Your task to perform on an android device: Search for sushi restaurants on Maps Image 0: 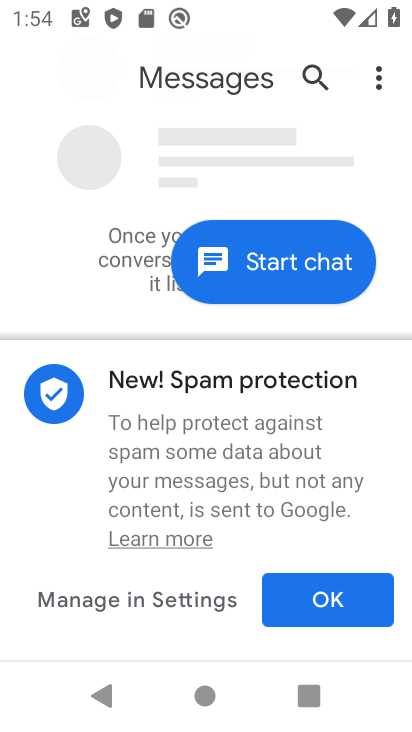
Step 0: press home button
Your task to perform on an android device: Search for sushi restaurants on Maps Image 1: 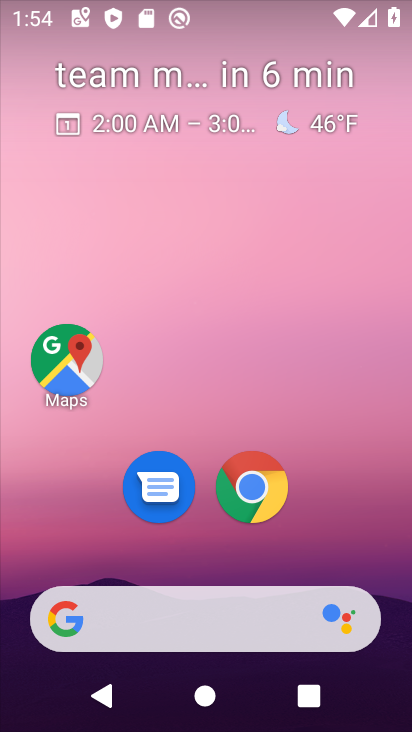
Step 1: drag from (331, 548) to (226, 121)
Your task to perform on an android device: Search for sushi restaurants on Maps Image 2: 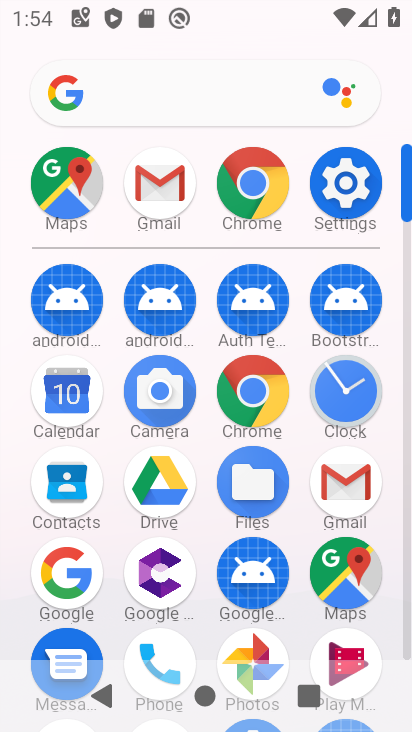
Step 2: click (344, 570)
Your task to perform on an android device: Search for sushi restaurants on Maps Image 3: 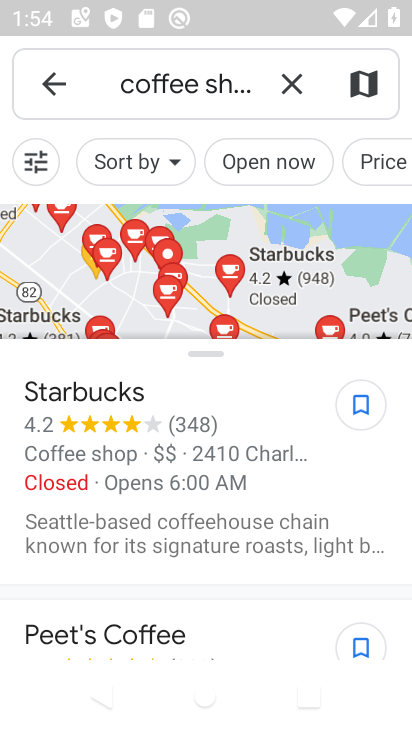
Step 3: click (171, 85)
Your task to perform on an android device: Search for sushi restaurants on Maps Image 4: 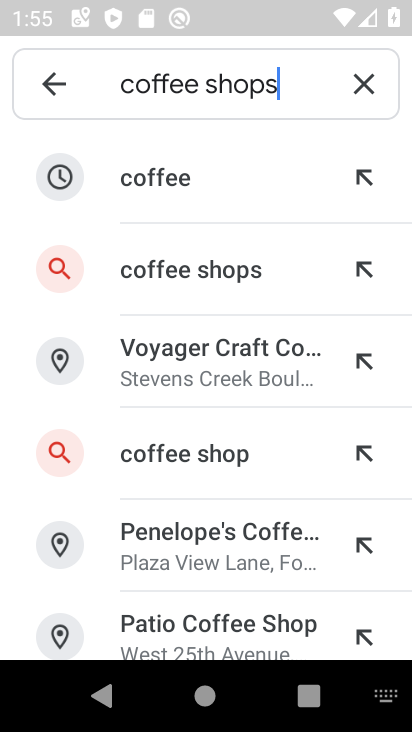
Step 4: click (367, 77)
Your task to perform on an android device: Search for sushi restaurants on Maps Image 5: 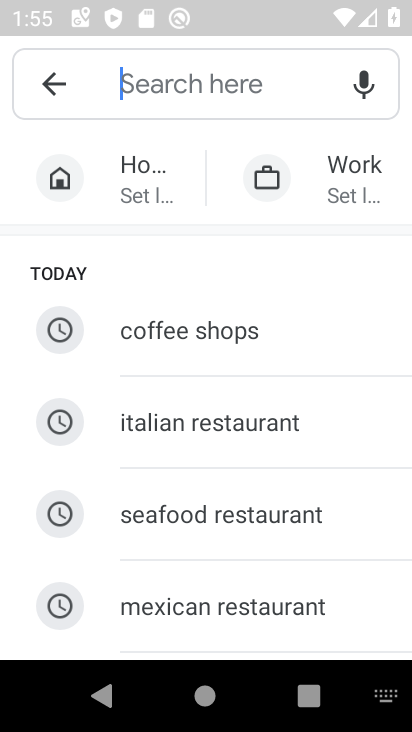
Step 5: type "sushi restaurants"
Your task to perform on an android device: Search for sushi restaurants on Maps Image 6: 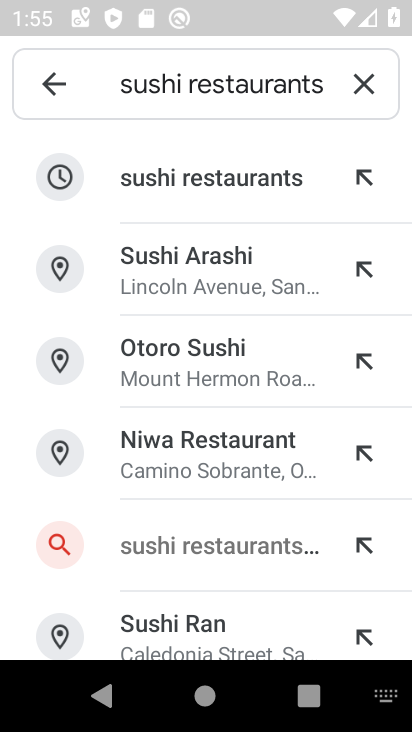
Step 6: click (219, 185)
Your task to perform on an android device: Search for sushi restaurants on Maps Image 7: 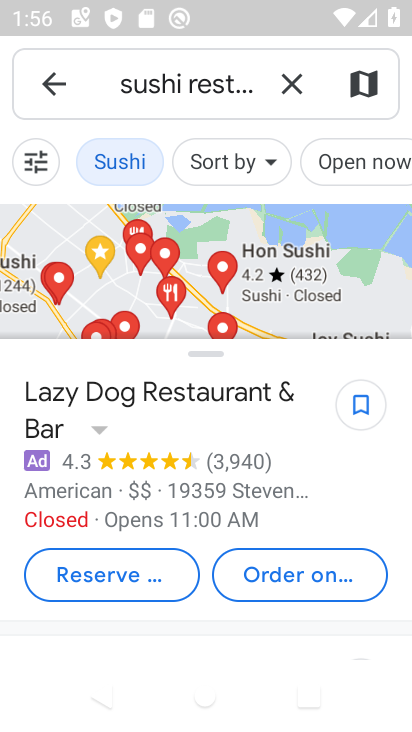
Step 7: task complete